Your task to perform on an android device: Open Chrome and go to the settings page Image 0: 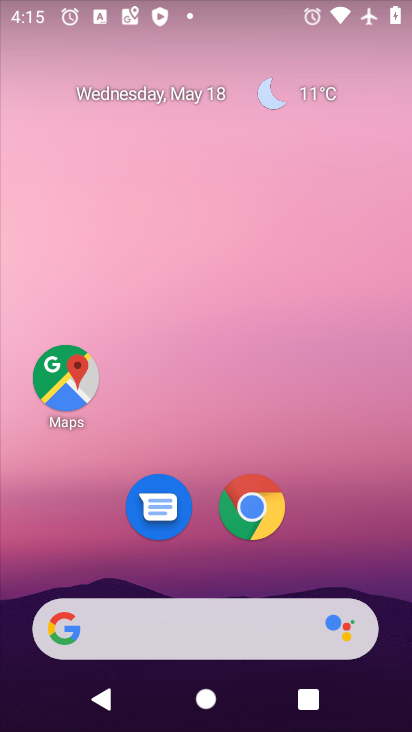
Step 0: click (248, 506)
Your task to perform on an android device: Open Chrome and go to the settings page Image 1: 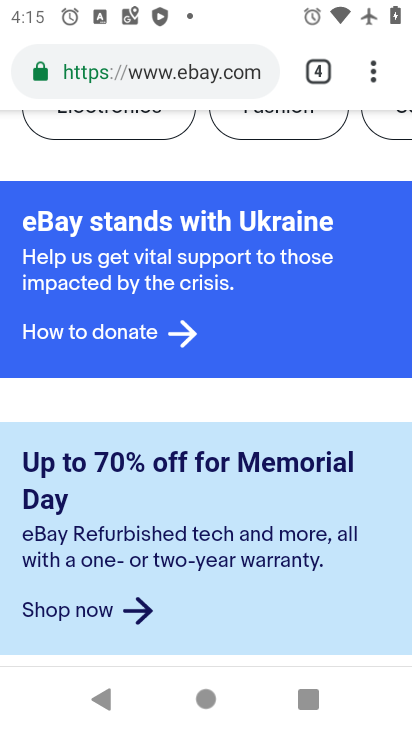
Step 1: click (371, 70)
Your task to perform on an android device: Open Chrome and go to the settings page Image 2: 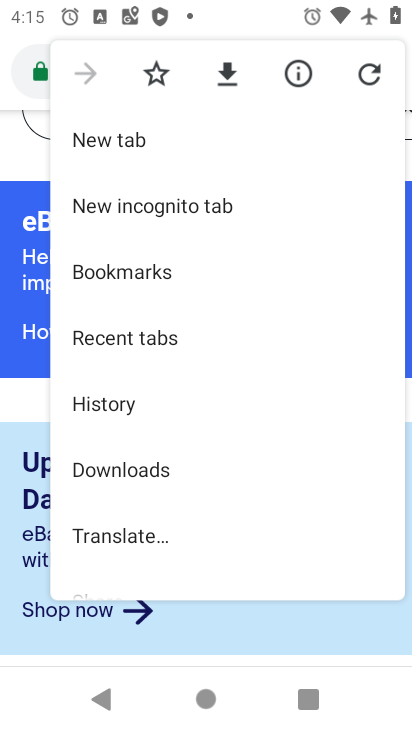
Step 2: drag from (231, 519) to (253, 176)
Your task to perform on an android device: Open Chrome and go to the settings page Image 3: 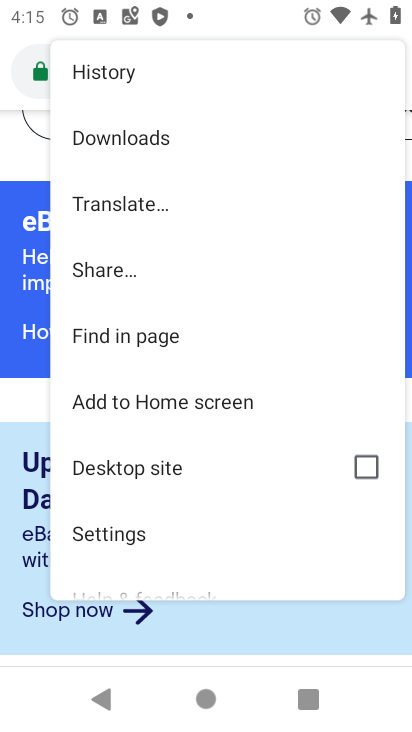
Step 3: click (130, 530)
Your task to perform on an android device: Open Chrome and go to the settings page Image 4: 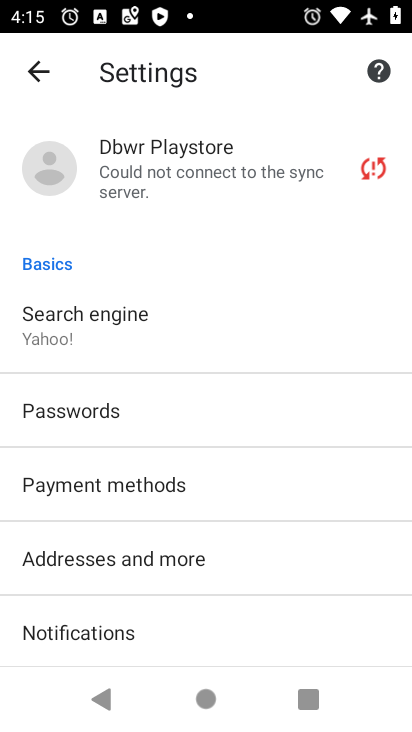
Step 4: task complete